Your task to perform on an android device: Open wifi settings Image 0: 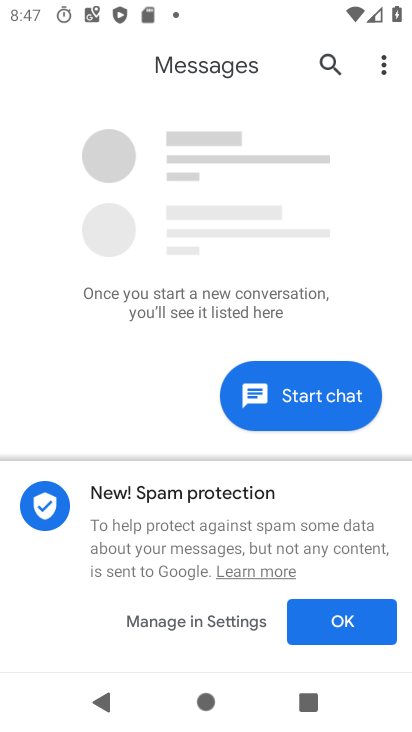
Step 0: press home button
Your task to perform on an android device: Open wifi settings Image 1: 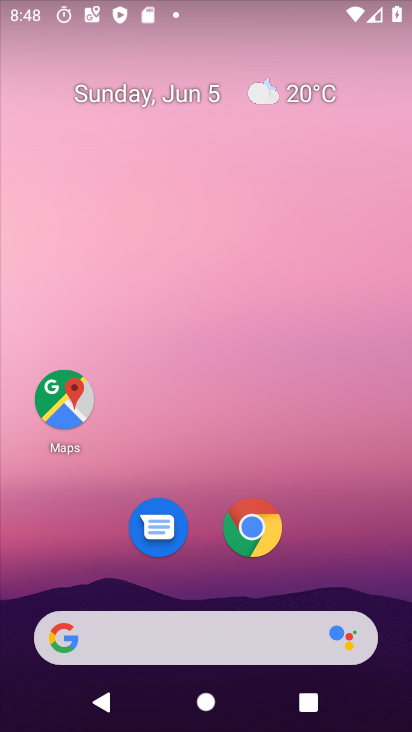
Step 1: drag from (351, 554) to (314, 0)
Your task to perform on an android device: Open wifi settings Image 2: 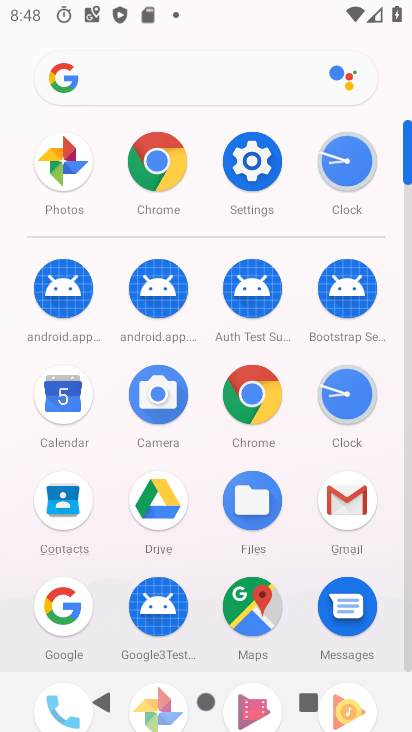
Step 2: click (240, 197)
Your task to perform on an android device: Open wifi settings Image 3: 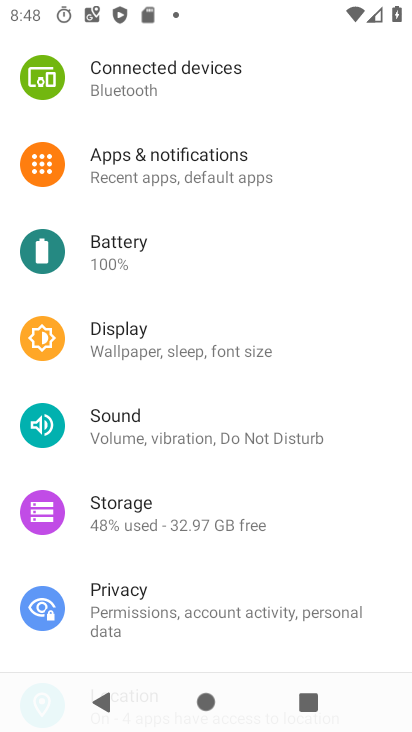
Step 3: drag from (242, 132) to (272, 453)
Your task to perform on an android device: Open wifi settings Image 4: 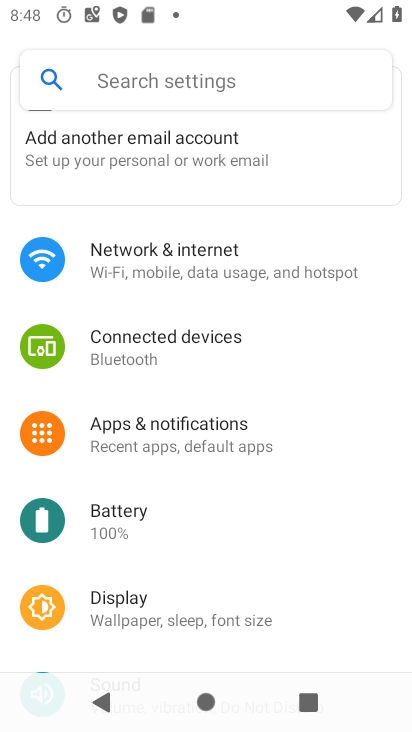
Step 4: click (157, 266)
Your task to perform on an android device: Open wifi settings Image 5: 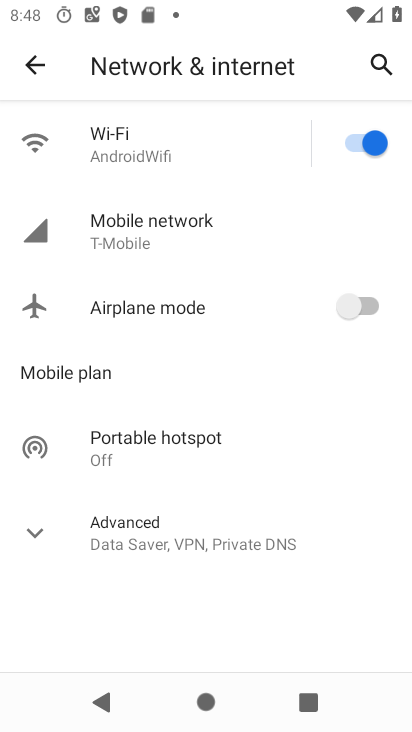
Step 5: click (143, 132)
Your task to perform on an android device: Open wifi settings Image 6: 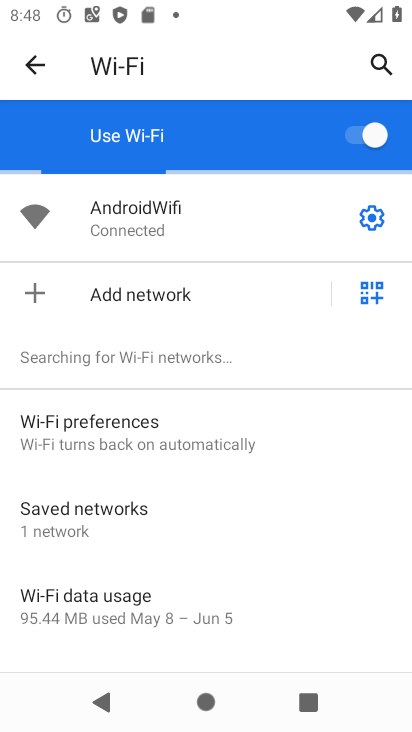
Step 6: task complete